Your task to perform on an android device: Open CNN.com Image 0: 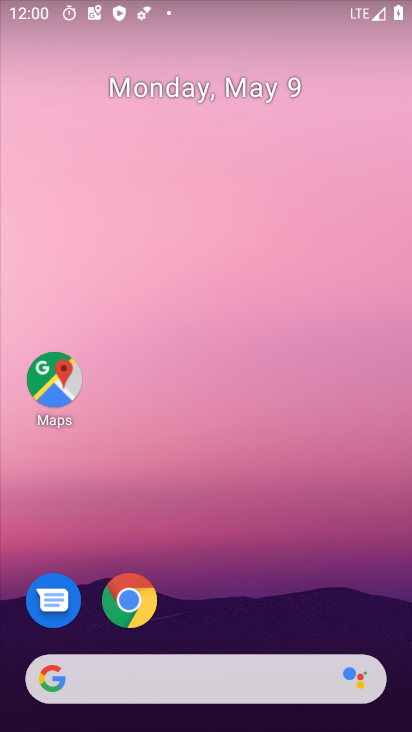
Step 0: drag from (234, 602) to (212, 238)
Your task to perform on an android device: Open CNN.com Image 1: 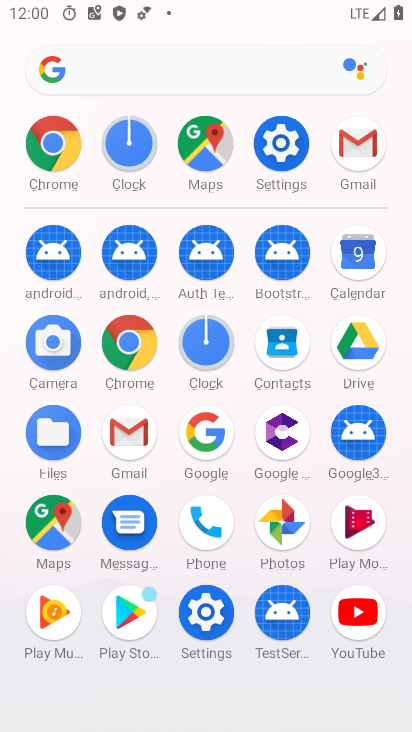
Step 1: click (130, 362)
Your task to perform on an android device: Open CNN.com Image 2: 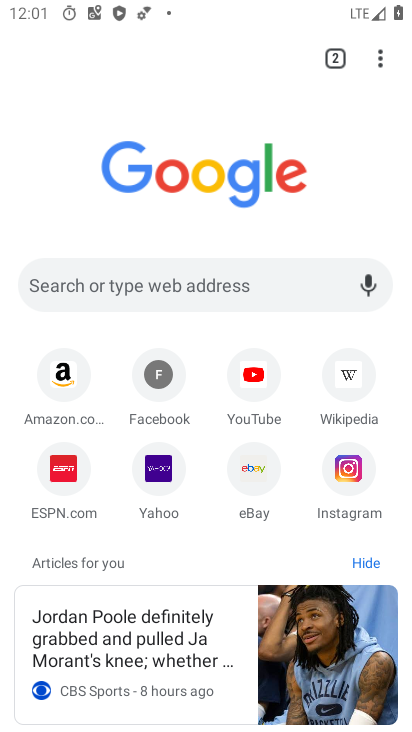
Step 2: click (178, 291)
Your task to perform on an android device: Open CNN.com Image 3: 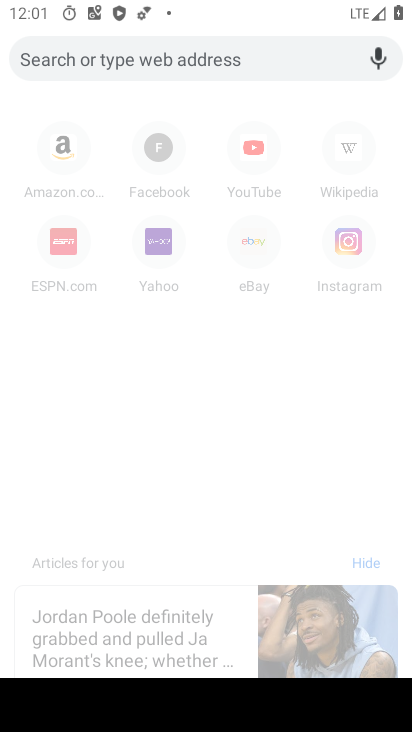
Step 3: type "cnn.com"
Your task to perform on an android device: Open CNN.com Image 4: 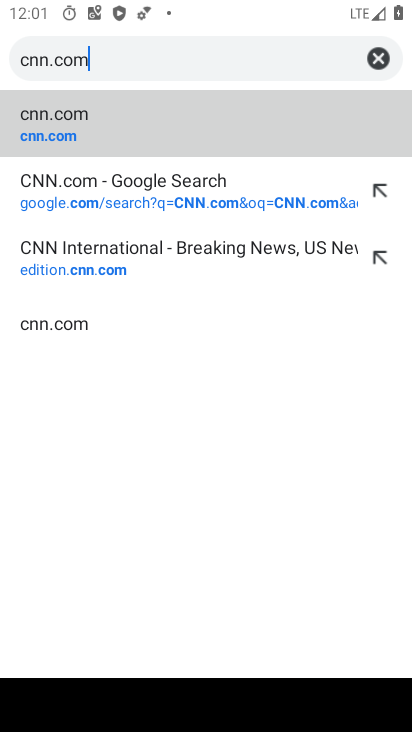
Step 4: type ""
Your task to perform on an android device: Open CNN.com Image 5: 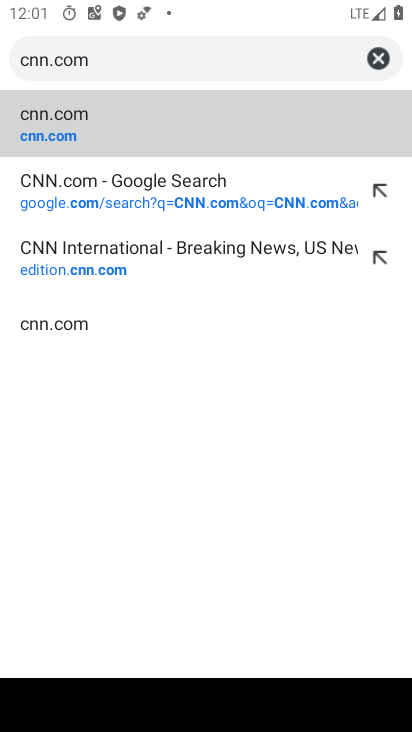
Step 5: click (127, 150)
Your task to perform on an android device: Open CNN.com Image 6: 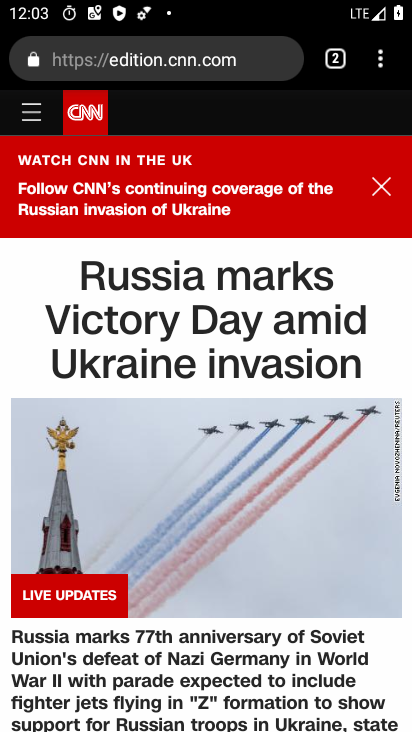
Step 6: task complete